Your task to perform on an android device: Open maps Image 0: 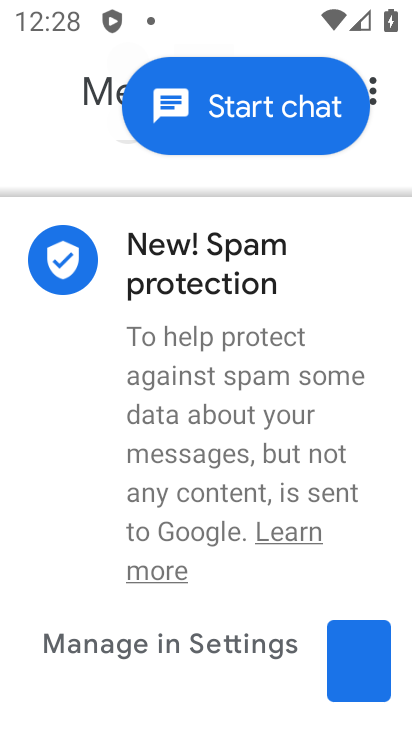
Step 0: press home button
Your task to perform on an android device: Open maps Image 1: 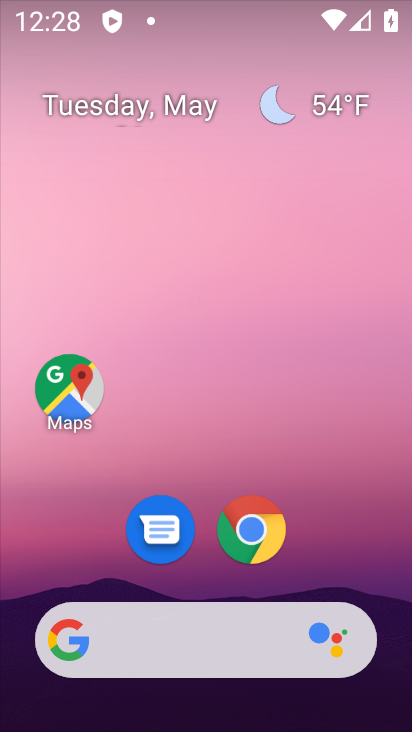
Step 1: drag from (346, 579) to (274, 295)
Your task to perform on an android device: Open maps Image 2: 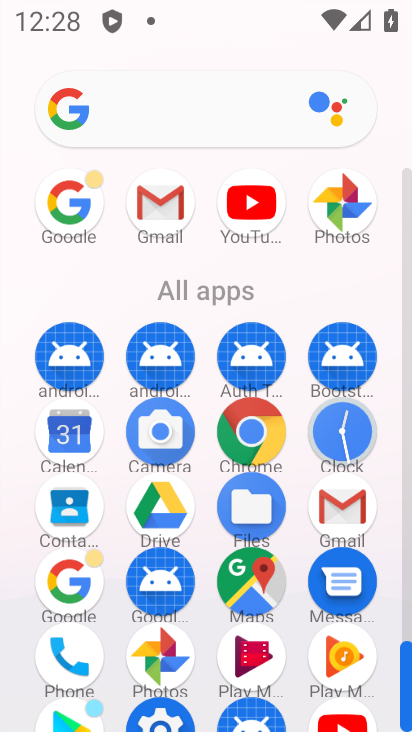
Step 2: click (239, 570)
Your task to perform on an android device: Open maps Image 3: 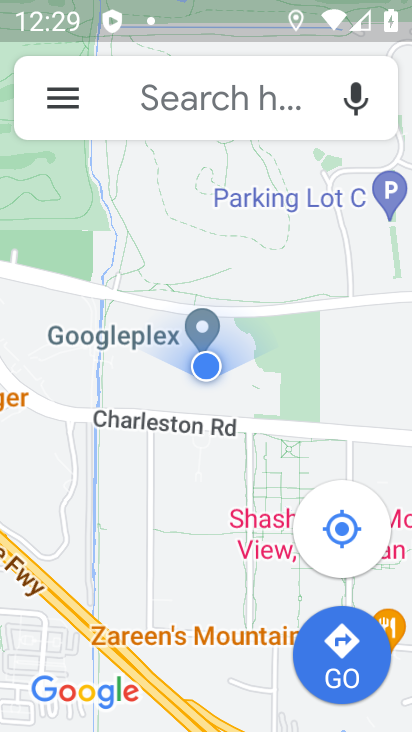
Step 3: task complete